Your task to perform on an android device: Open the stopwatch Image 0: 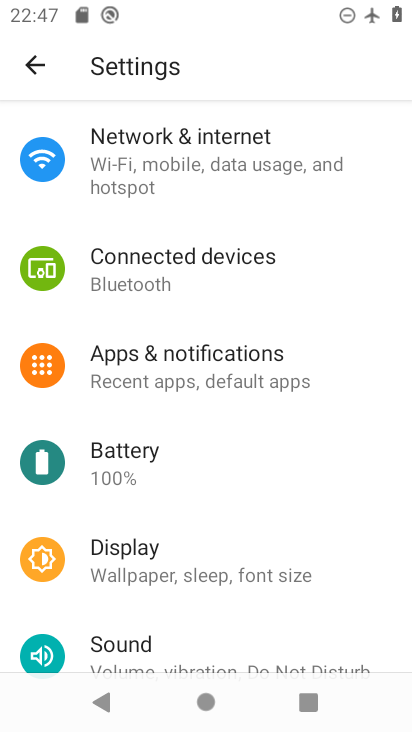
Step 0: press home button
Your task to perform on an android device: Open the stopwatch Image 1: 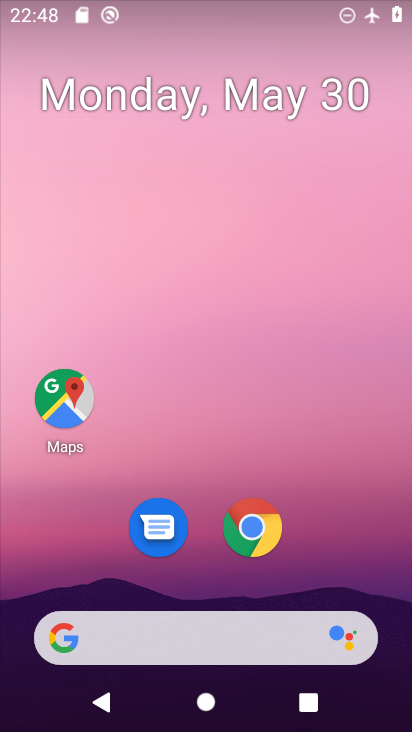
Step 1: drag from (341, 564) to (339, 166)
Your task to perform on an android device: Open the stopwatch Image 2: 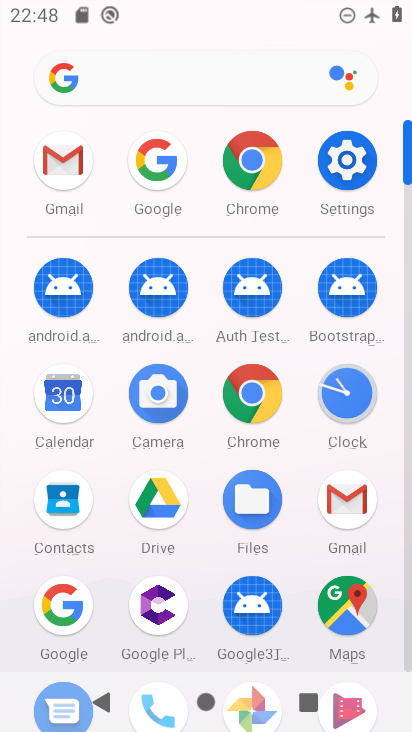
Step 2: click (346, 394)
Your task to perform on an android device: Open the stopwatch Image 3: 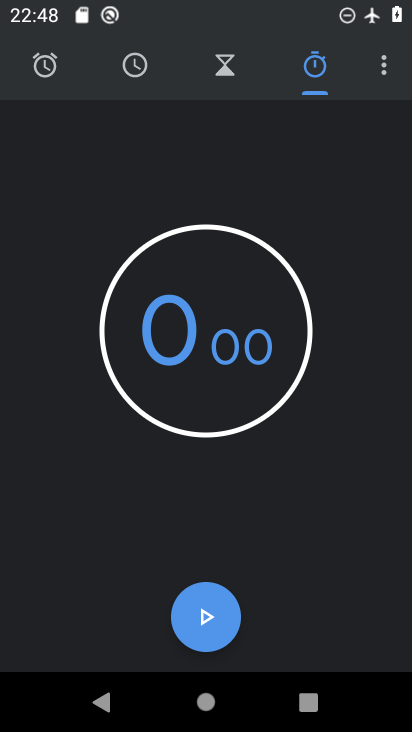
Step 3: click (383, 71)
Your task to perform on an android device: Open the stopwatch Image 4: 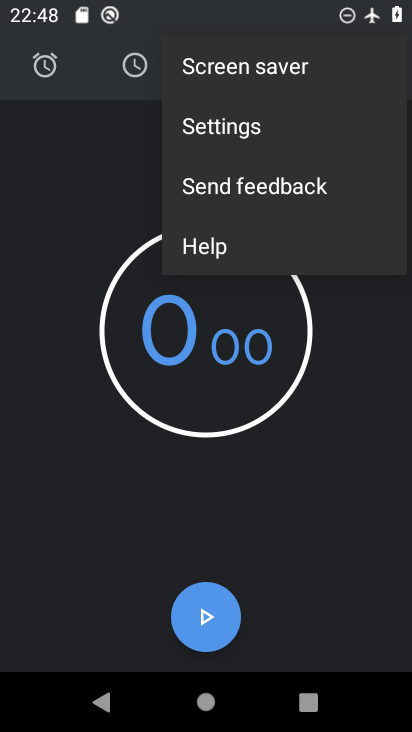
Step 4: click (326, 405)
Your task to perform on an android device: Open the stopwatch Image 5: 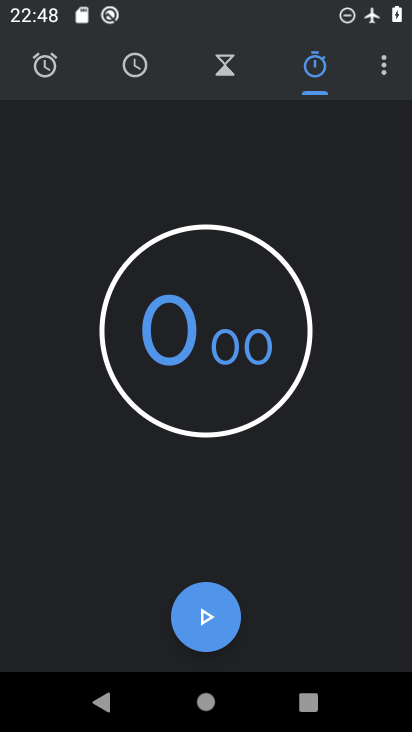
Step 5: task complete